Your task to perform on an android device: change the clock display to analog Image 0: 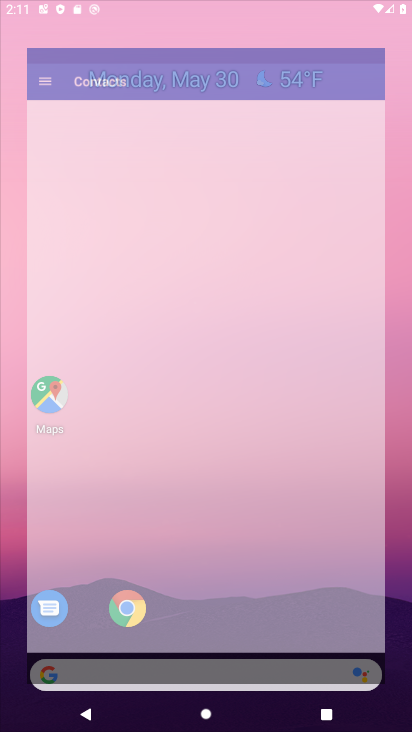
Step 0: drag from (297, 599) to (234, 92)
Your task to perform on an android device: change the clock display to analog Image 1: 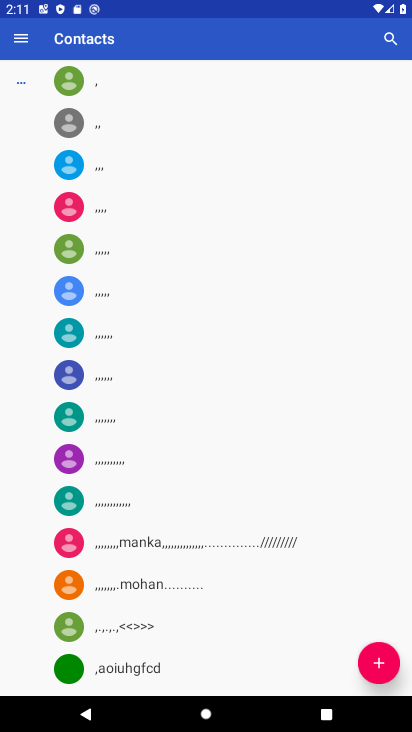
Step 1: press home button
Your task to perform on an android device: change the clock display to analog Image 2: 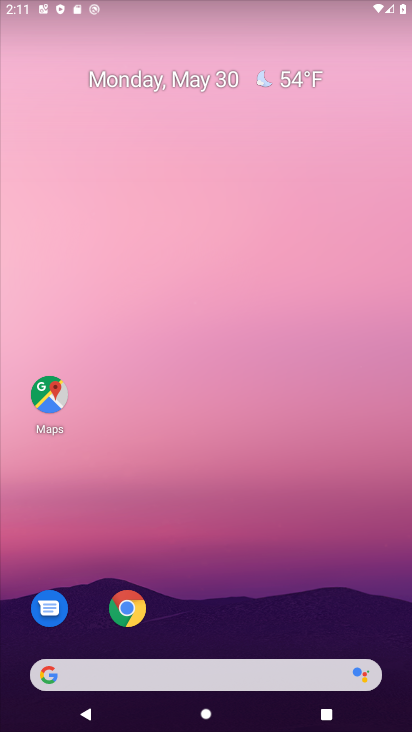
Step 2: drag from (255, 550) to (217, 33)
Your task to perform on an android device: change the clock display to analog Image 3: 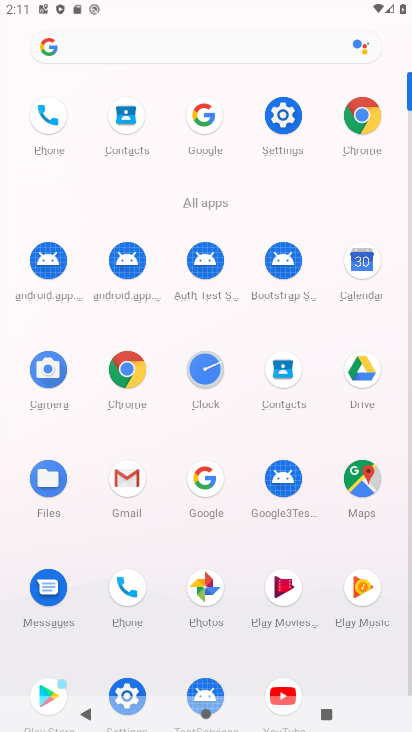
Step 3: click (212, 362)
Your task to perform on an android device: change the clock display to analog Image 4: 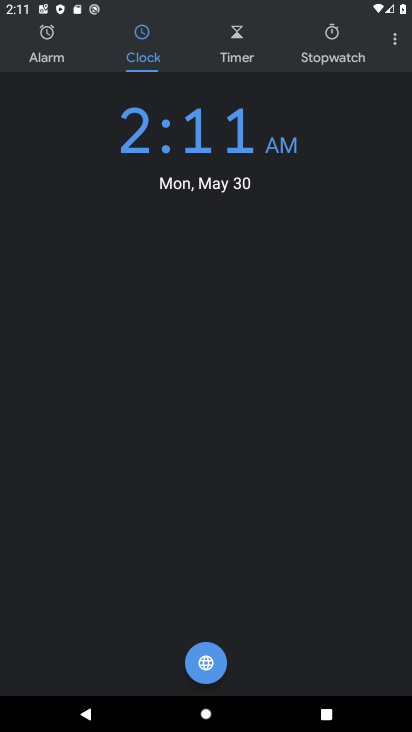
Step 4: click (387, 39)
Your task to perform on an android device: change the clock display to analog Image 5: 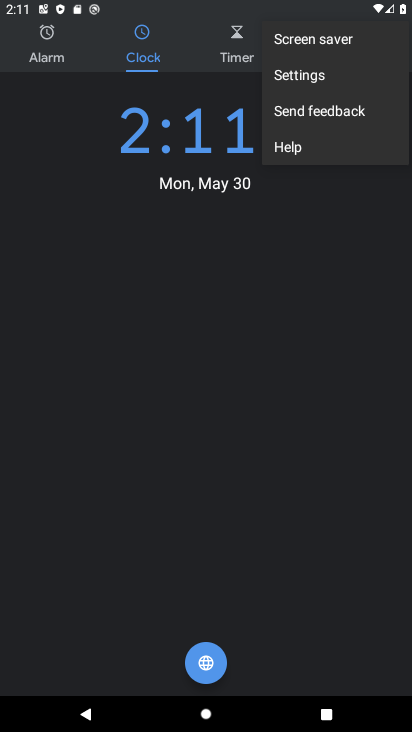
Step 5: click (323, 74)
Your task to perform on an android device: change the clock display to analog Image 6: 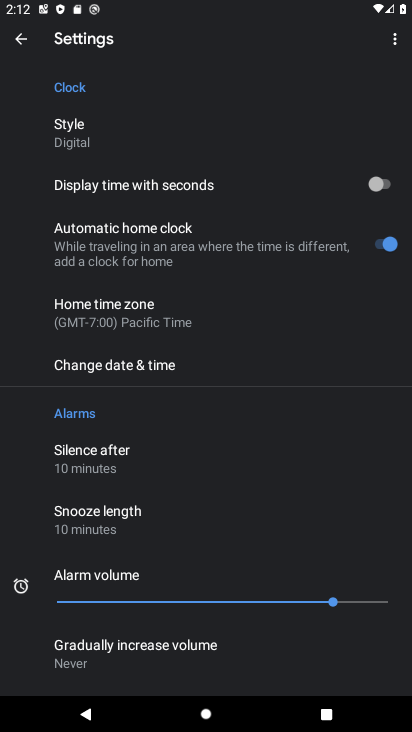
Step 6: click (137, 145)
Your task to perform on an android device: change the clock display to analog Image 7: 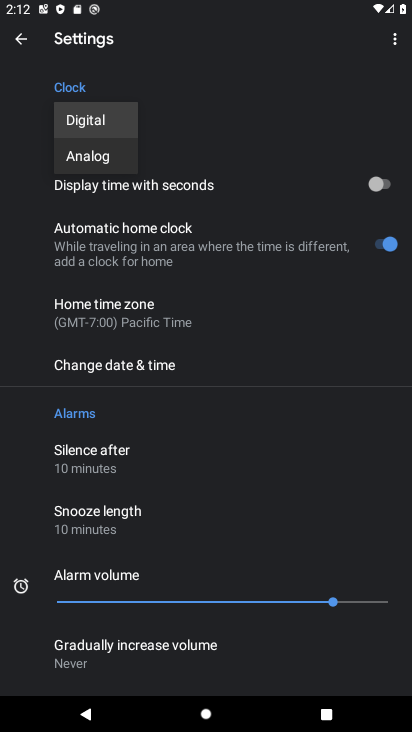
Step 7: click (126, 158)
Your task to perform on an android device: change the clock display to analog Image 8: 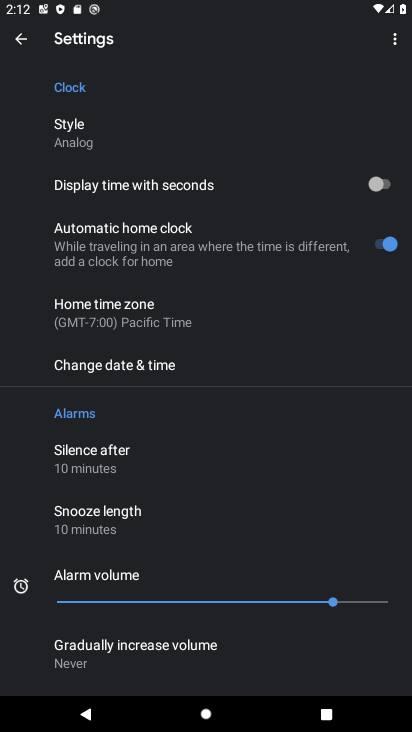
Step 8: task complete